Your task to perform on an android device: Go to Yahoo.com Image 0: 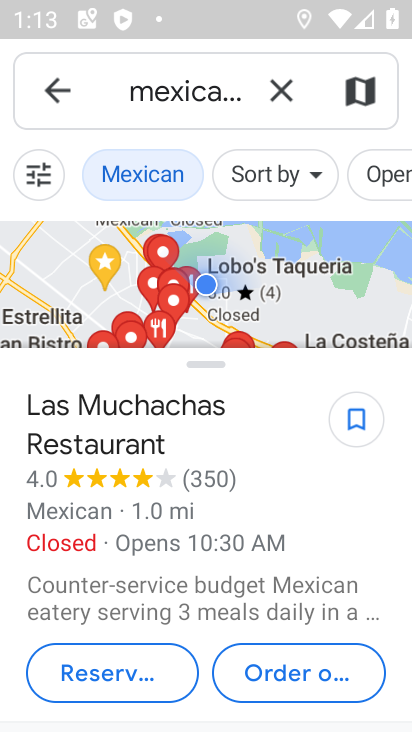
Step 0: press home button
Your task to perform on an android device: Go to Yahoo.com Image 1: 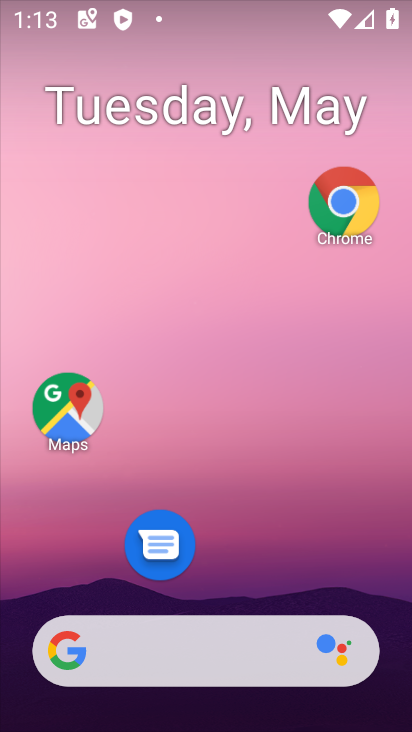
Step 1: click (339, 211)
Your task to perform on an android device: Go to Yahoo.com Image 2: 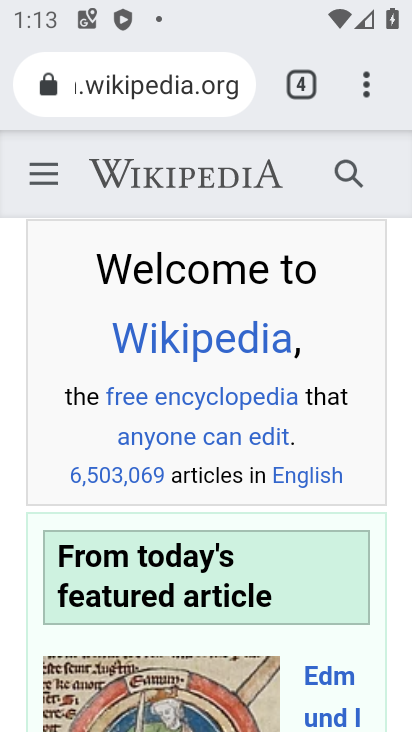
Step 2: click (315, 98)
Your task to perform on an android device: Go to Yahoo.com Image 3: 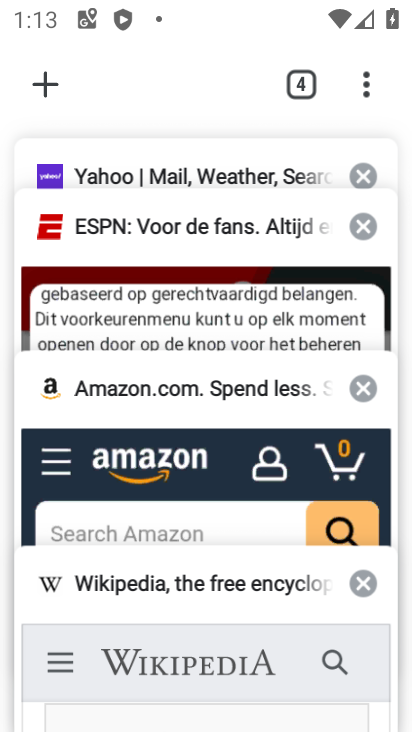
Step 3: click (97, 169)
Your task to perform on an android device: Go to Yahoo.com Image 4: 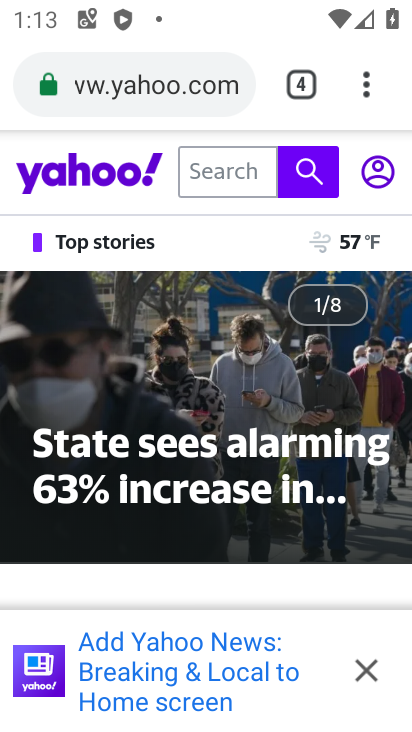
Step 4: task complete